Your task to perform on an android device: delete location history Image 0: 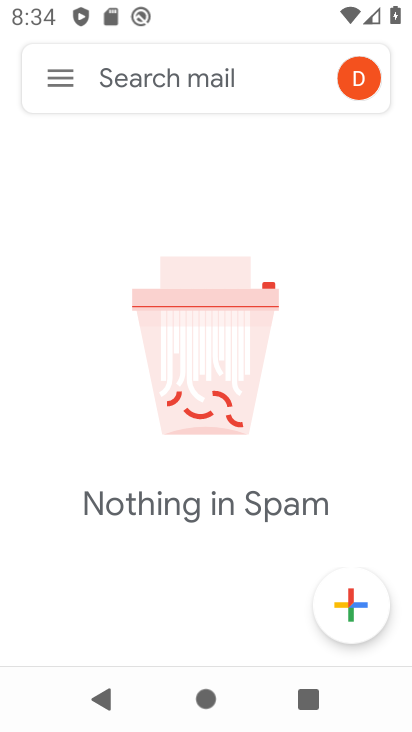
Step 0: press home button
Your task to perform on an android device: delete location history Image 1: 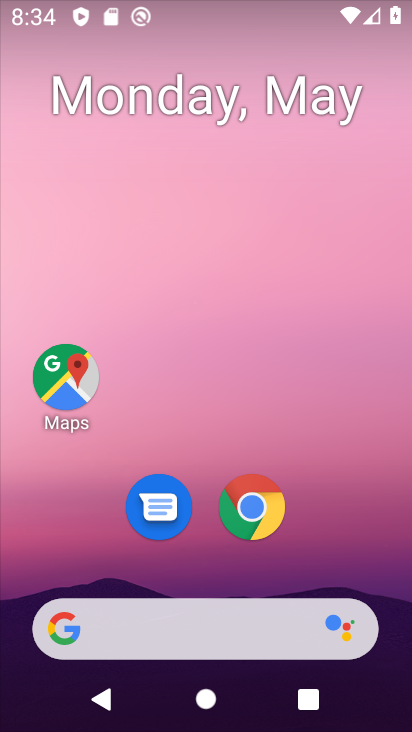
Step 1: click (76, 377)
Your task to perform on an android device: delete location history Image 2: 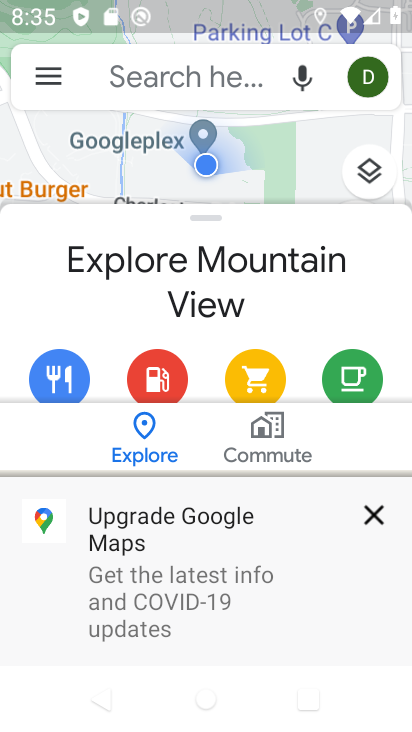
Step 2: click (390, 511)
Your task to perform on an android device: delete location history Image 3: 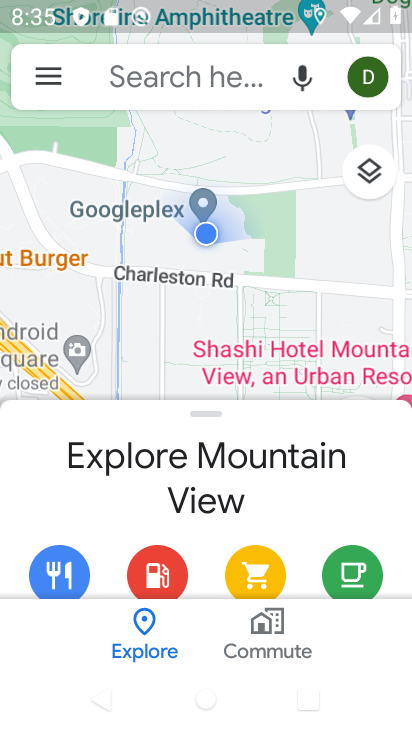
Step 3: click (43, 79)
Your task to perform on an android device: delete location history Image 4: 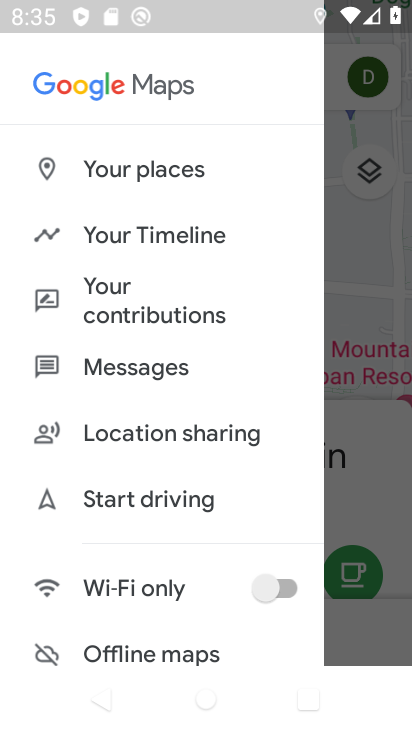
Step 4: click (165, 227)
Your task to perform on an android device: delete location history Image 5: 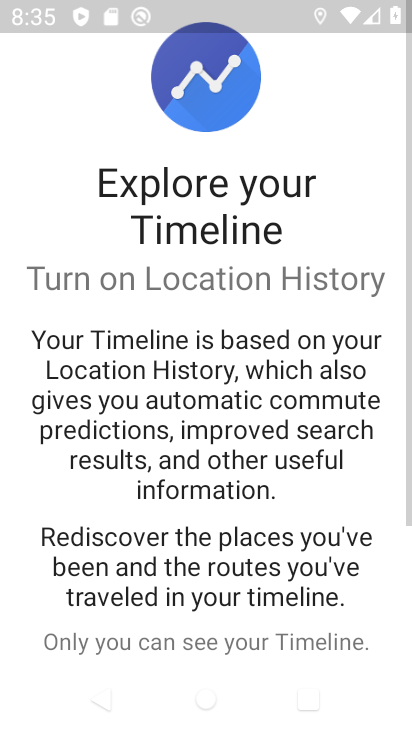
Step 5: drag from (309, 600) to (334, 144)
Your task to perform on an android device: delete location history Image 6: 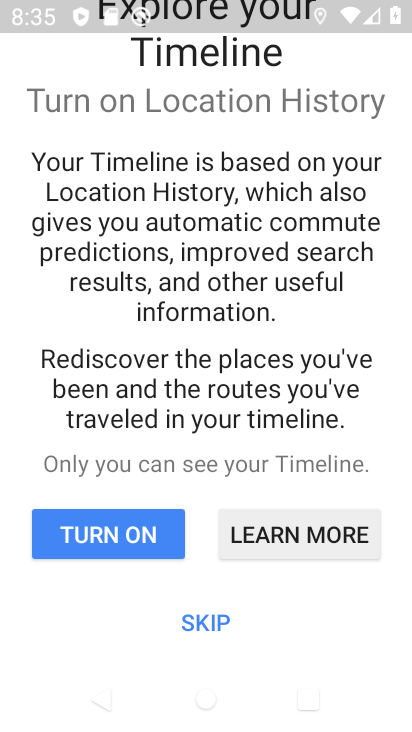
Step 6: click (204, 621)
Your task to perform on an android device: delete location history Image 7: 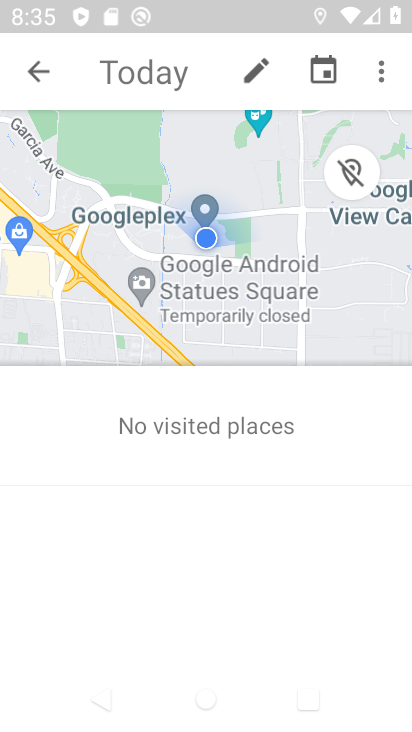
Step 7: click (385, 72)
Your task to perform on an android device: delete location history Image 8: 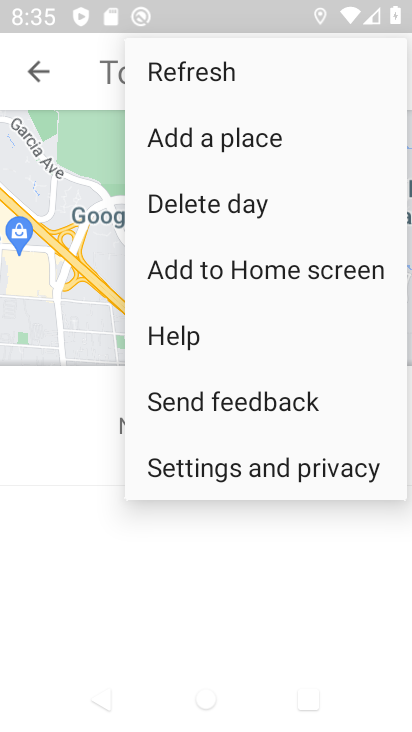
Step 8: click (186, 467)
Your task to perform on an android device: delete location history Image 9: 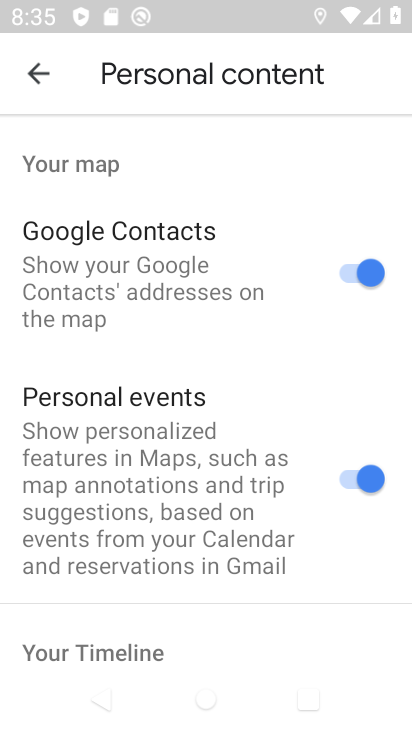
Step 9: drag from (227, 531) to (313, 68)
Your task to perform on an android device: delete location history Image 10: 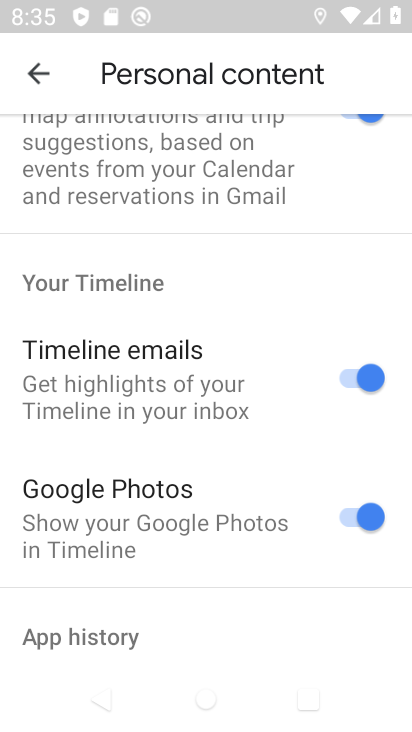
Step 10: drag from (273, 506) to (306, 192)
Your task to perform on an android device: delete location history Image 11: 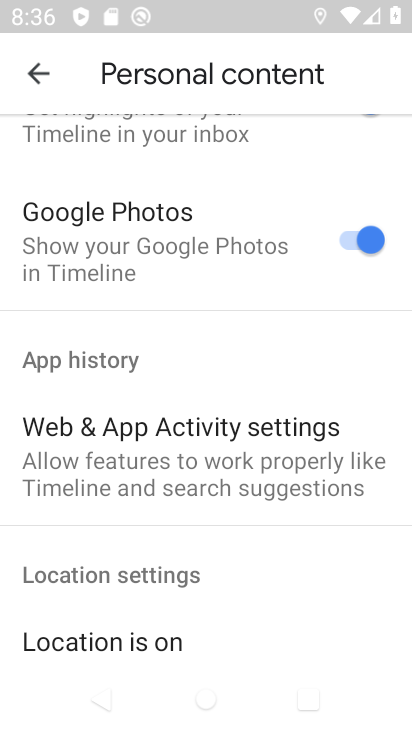
Step 11: drag from (196, 553) to (270, 127)
Your task to perform on an android device: delete location history Image 12: 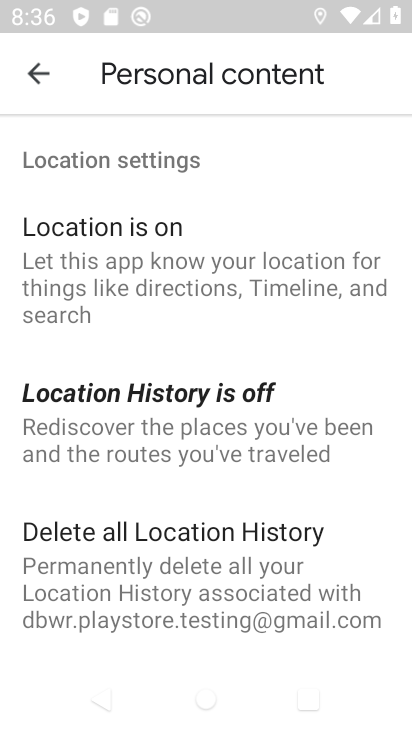
Step 12: click (237, 545)
Your task to perform on an android device: delete location history Image 13: 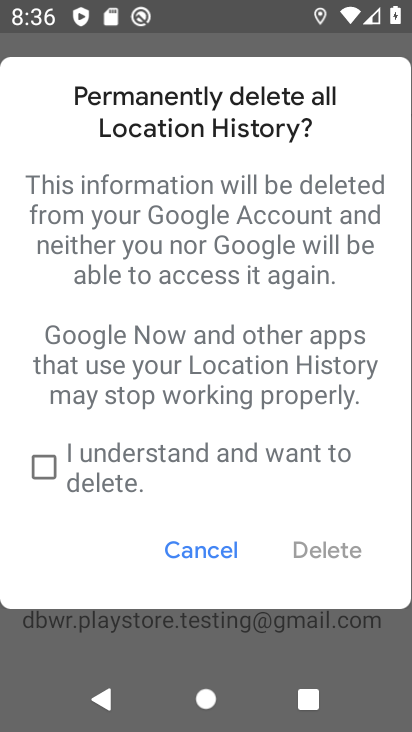
Step 13: click (69, 468)
Your task to perform on an android device: delete location history Image 14: 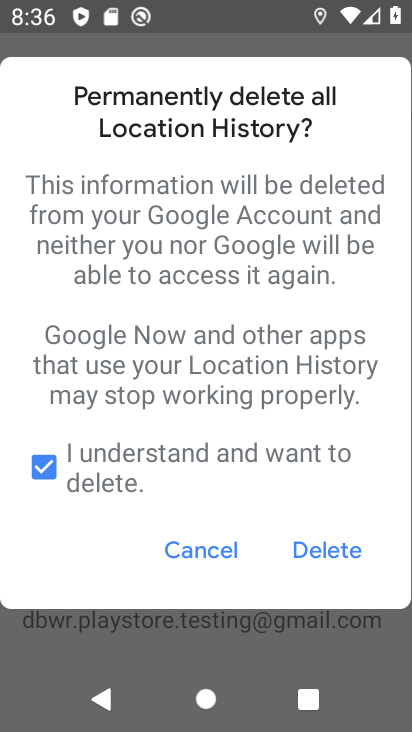
Step 14: click (328, 542)
Your task to perform on an android device: delete location history Image 15: 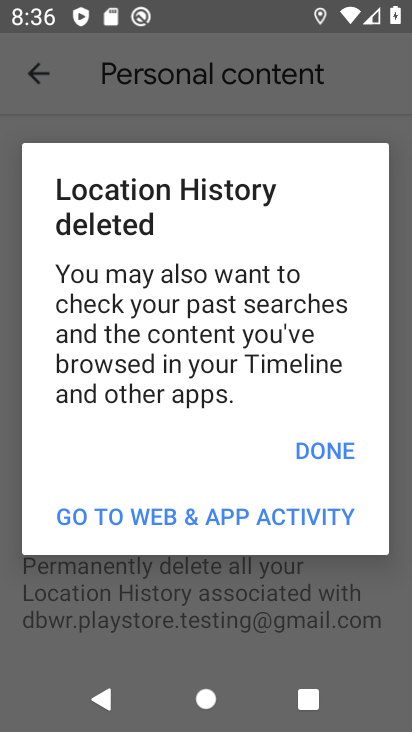
Step 15: click (349, 436)
Your task to perform on an android device: delete location history Image 16: 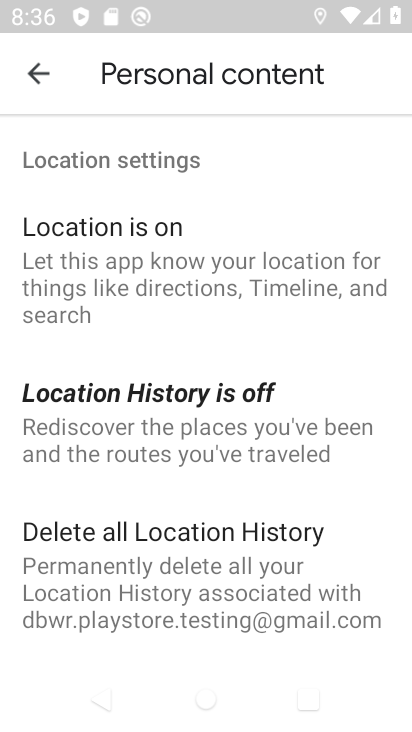
Step 16: task complete